Your task to perform on an android device: make emails show in primary in the gmail app Image 0: 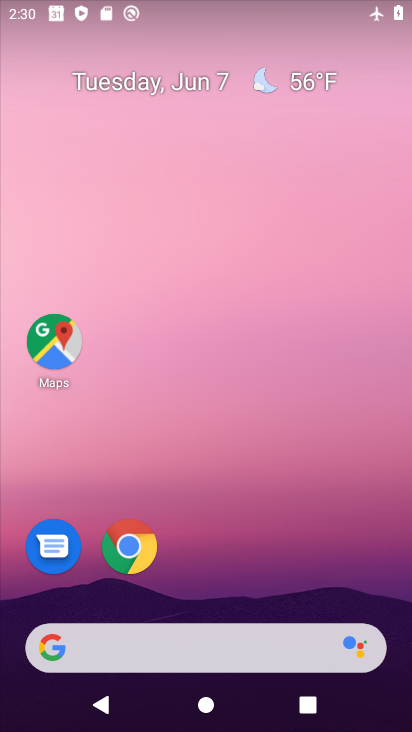
Step 0: drag from (329, 629) to (313, 33)
Your task to perform on an android device: make emails show in primary in the gmail app Image 1: 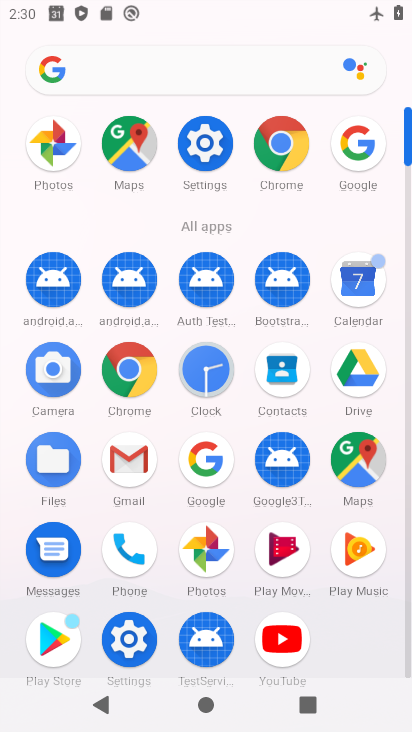
Step 1: click (129, 455)
Your task to perform on an android device: make emails show in primary in the gmail app Image 2: 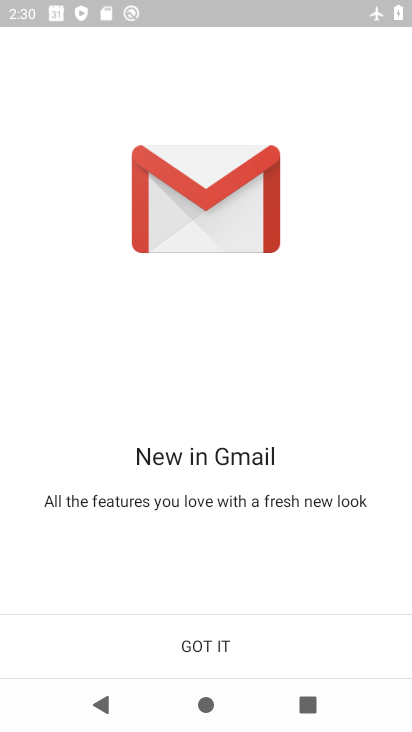
Step 2: click (215, 660)
Your task to perform on an android device: make emails show in primary in the gmail app Image 3: 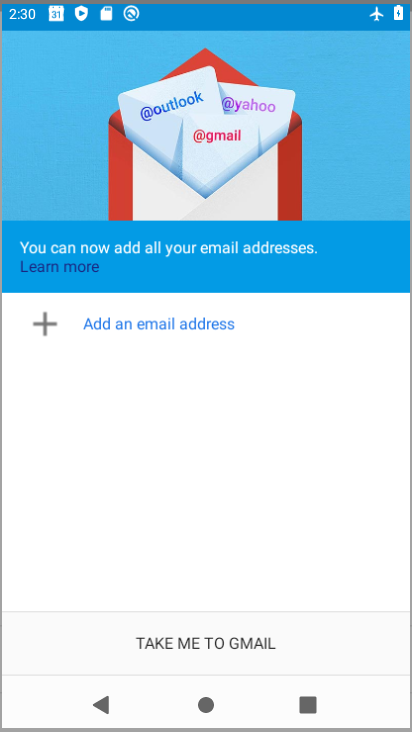
Step 3: click (215, 660)
Your task to perform on an android device: make emails show in primary in the gmail app Image 4: 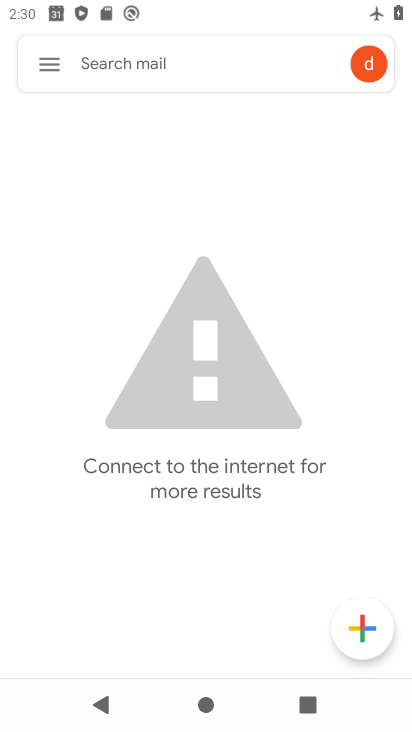
Step 4: click (51, 53)
Your task to perform on an android device: make emails show in primary in the gmail app Image 5: 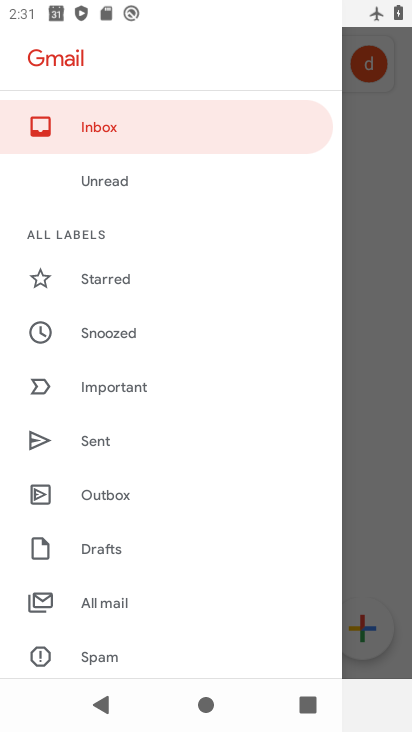
Step 5: task complete